Your task to perform on an android device: When is my next meeting? Image 0: 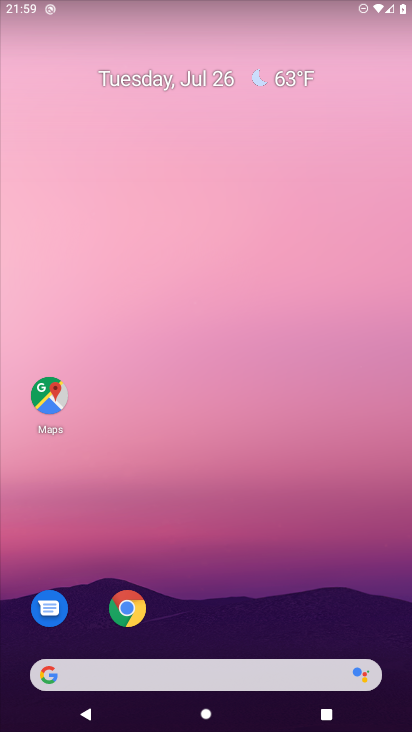
Step 0: click (166, 70)
Your task to perform on an android device: When is my next meeting? Image 1: 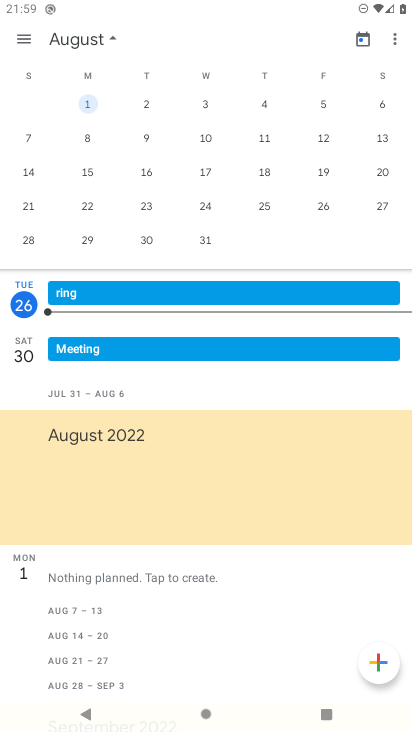
Step 1: click (294, 114)
Your task to perform on an android device: When is my next meeting? Image 2: 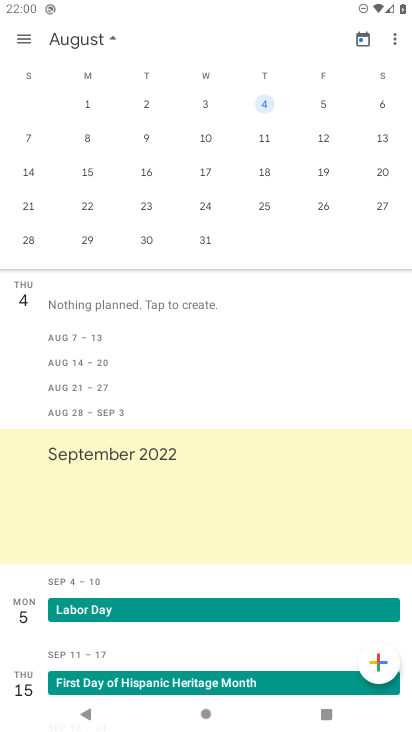
Step 2: drag from (14, 104) to (358, 74)
Your task to perform on an android device: When is my next meeting? Image 3: 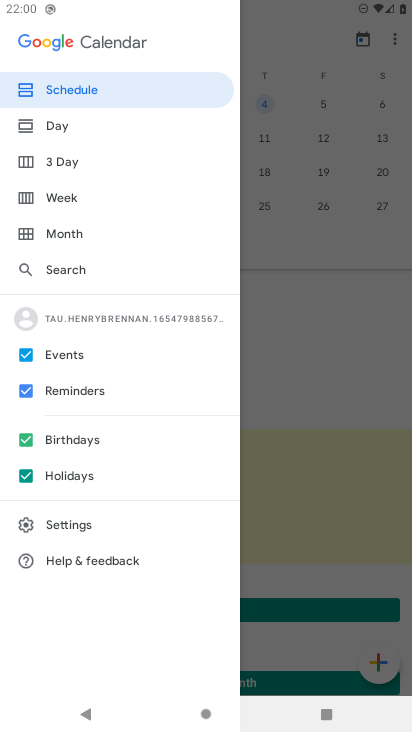
Step 3: click (352, 317)
Your task to perform on an android device: When is my next meeting? Image 4: 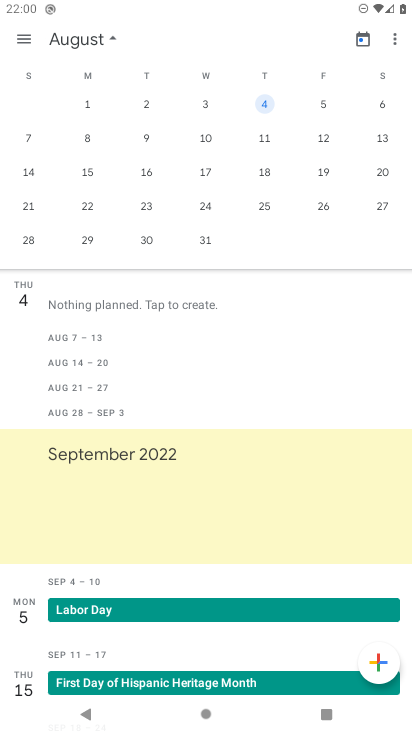
Step 4: task complete